Your task to perform on an android device: Show me productivity apps on the Play Store Image 0: 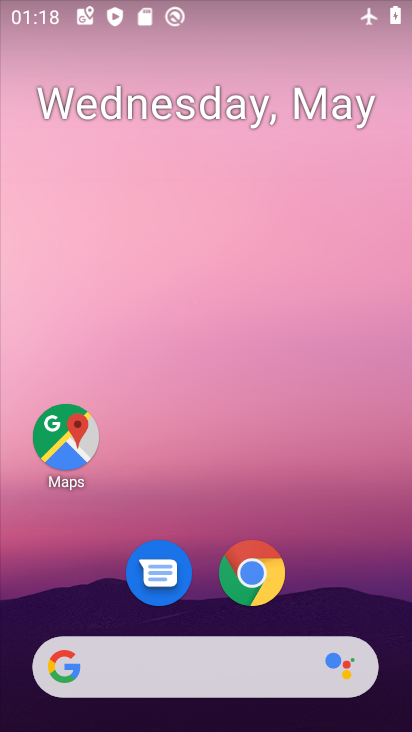
Step 0: drag from (318, 559) to (299, 283)
Your task to perform on an android device: Show me productivity apps on the Play Store Image 1: 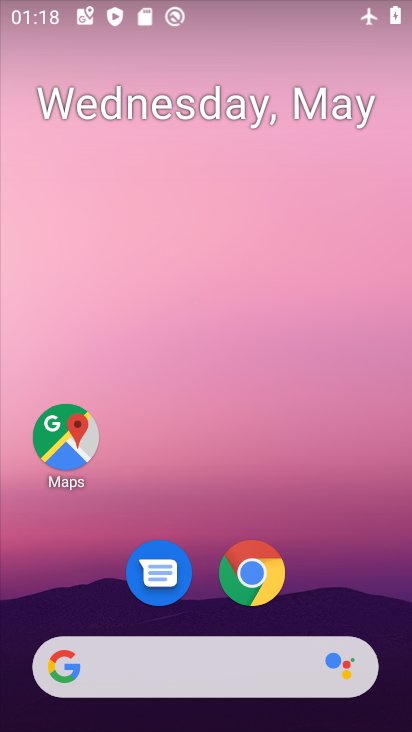
Step 1: drag from (229, 517) to (220, 242)
Your task to perform on an android device: Show me productivity apps on the Play Store Image 2: 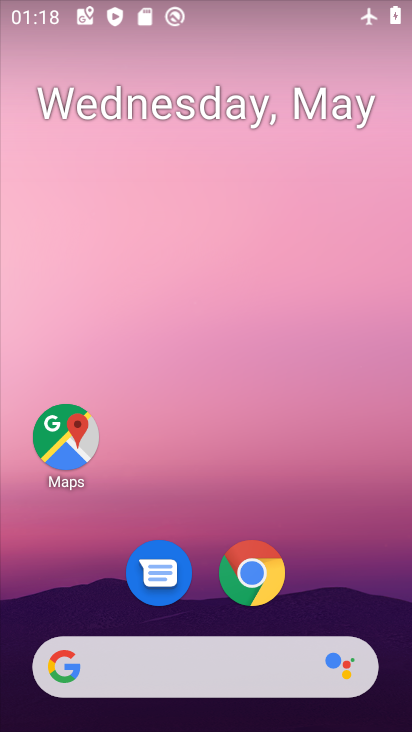
Step 2: drag from (190, 628) to (210, 242)
Your task to perform on an android device: Show me productivity apps on the Play Store Image 3: 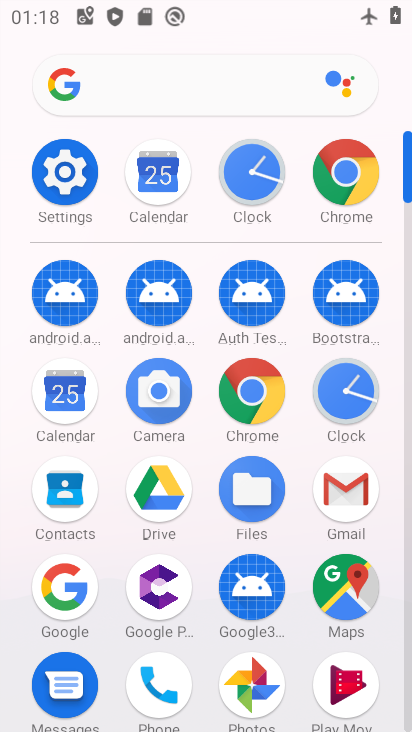
Step 3: drag from (196, 630) to (203, 313)
Your task to perform on an android device: Show me productivity apps on the Play Store Image 4: 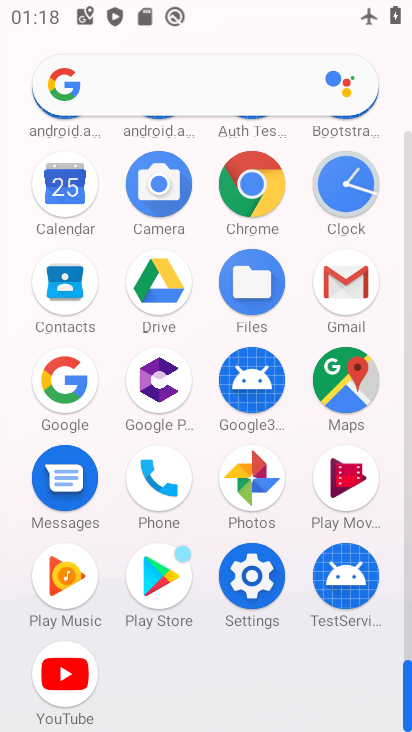
Step 4: click (154, 577)
Your task to perform on an android device: Show me productivity apps on the Play Store Image 5: 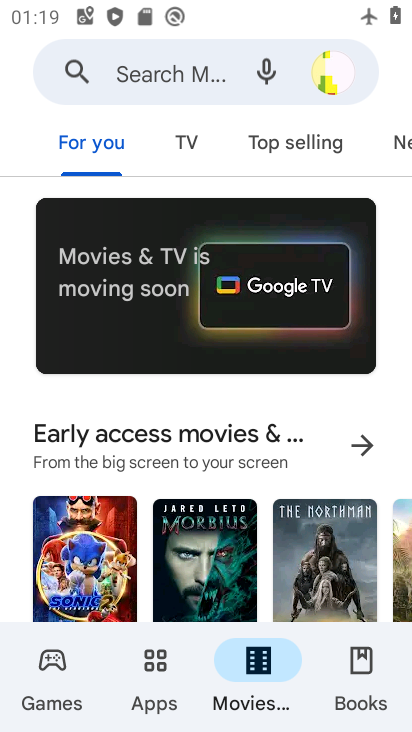
Step 5: click (157, 664)
Your task to perform on an android device: Show me productivity apps on the Play Store Image 6: 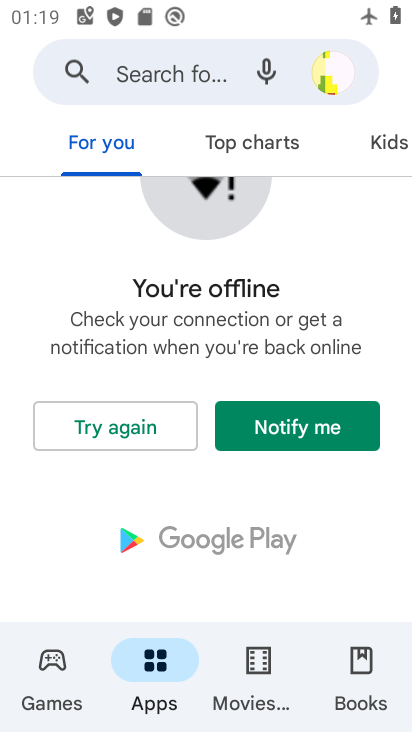
Step 6: task complete